Your task to perform on an android device: turn off translation in the chrome app Image 0: 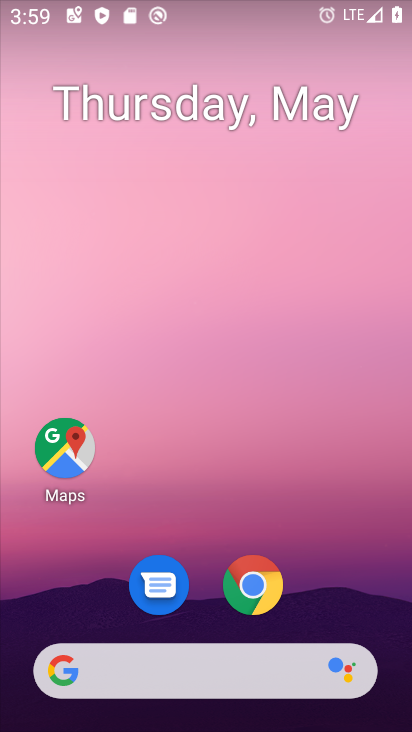
Step 0: click (273, 588)
Your task to perform on an android device: turn off translation in the chrome app Image 1: 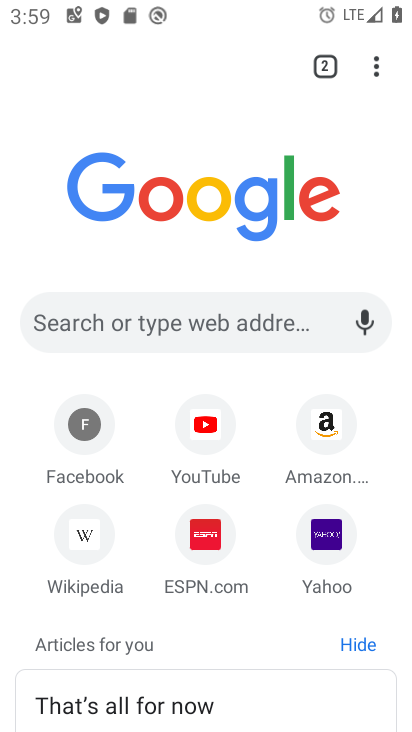
Step 1: click (378, 68)
Your task to perform on an android device: turn off translation in the chrome app Image 2: 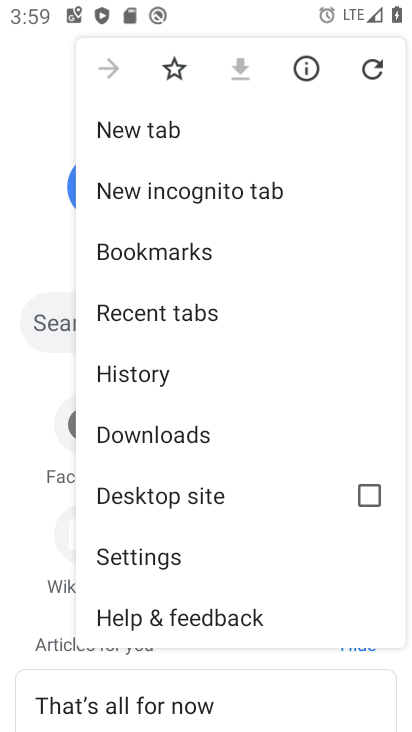
Step 2: click (202, 550)
Your task to perform on an android device: turn off translation in the chrome app Image 3: 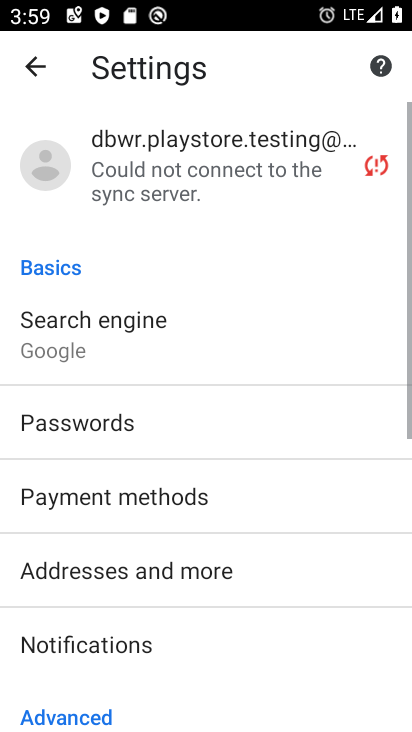
Step 3: drag from (265, 511) to (272, 272)
Your task to perform on an android device: turn off translation in the chrome app Image 4: 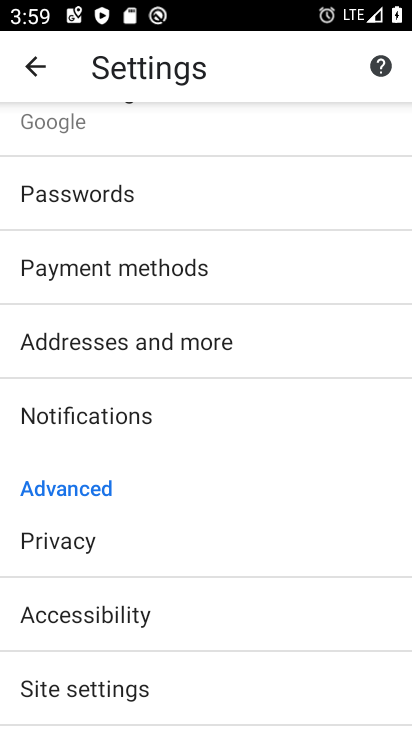
Step 4: drag from (195, 578) to (195, 294)
Your task to perform on an android device: turn off translation in the chrome app Image 5: 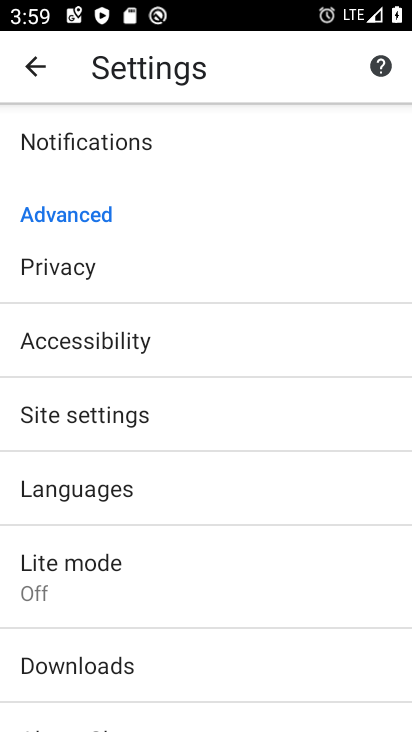
Step 5: click (192, 494)
Your task to perform on an android device: turn off translation in the chrome app Image 6: 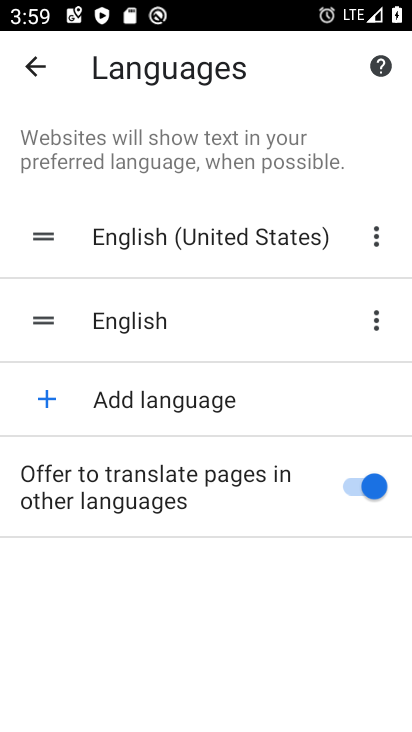
Step 6: click (351, 479)
Your task to perform on an android device: turn off translation in the chrome app Image 7: 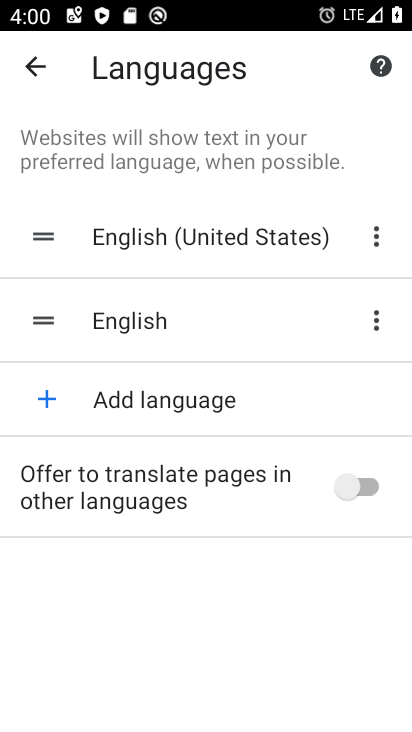
Step 7: task complete